Your task to perform on an android device: Do I have any events today? Image 0: 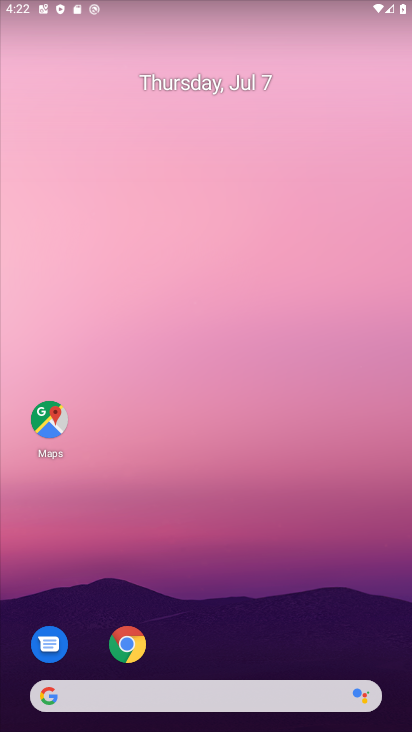
Step 0: drag from (198, 655) to (220, 0)
Your task to perform on an android device: Do I have any events today? Image 1: 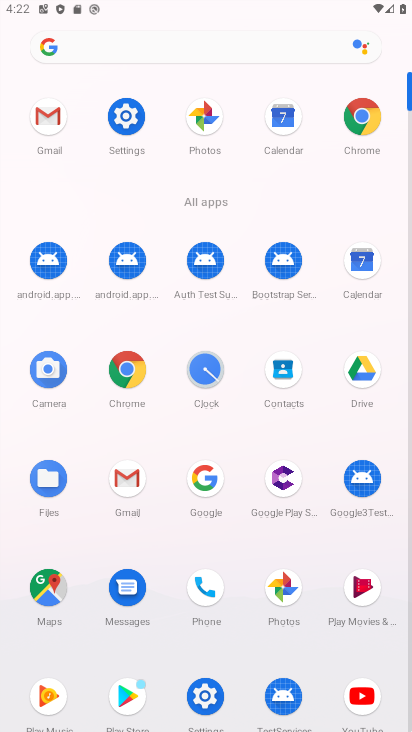
Step 1: click (359, 270)
Your task to perform on an android device: Do I have any events today? Image 2: 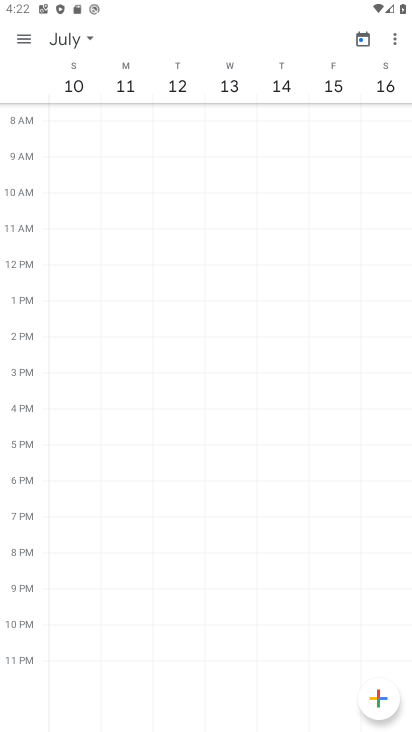
Step 2: drag from (79, 91) to (327, 88)
Your task to perform on an android device: Do I have any events today? Image 3: 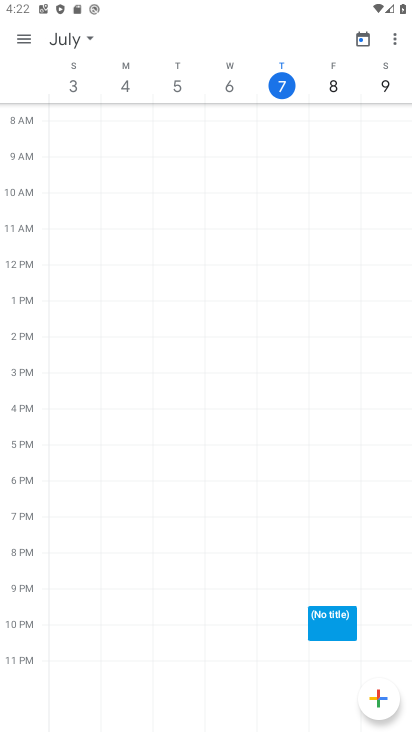
Step 3: click (21, 38)
Your task to perform on an android device: Do I have any events today? Image 4: 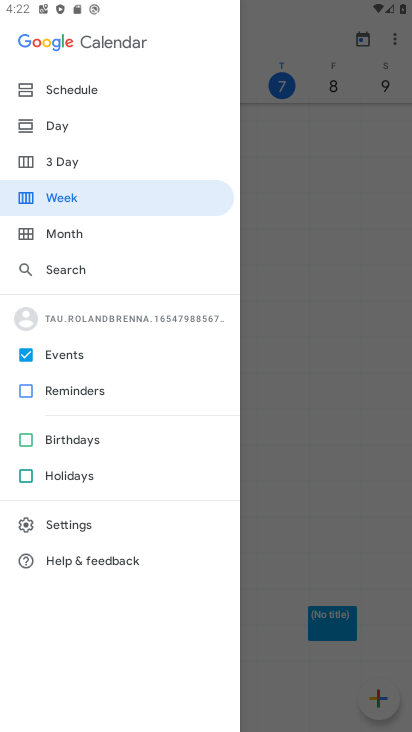
Step 4: click (72, 128)
Your task to perform on an android device: Do I have any events today? Image 5: 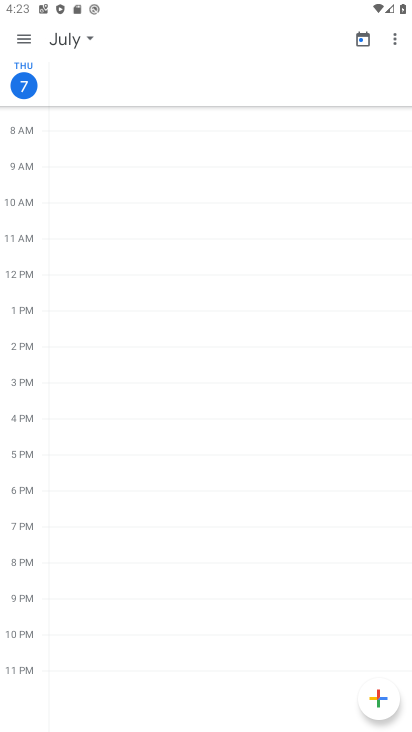
Step 5: task complete